Your task to perform on an android device: What's the weather going to be tomorrow? Image 0: 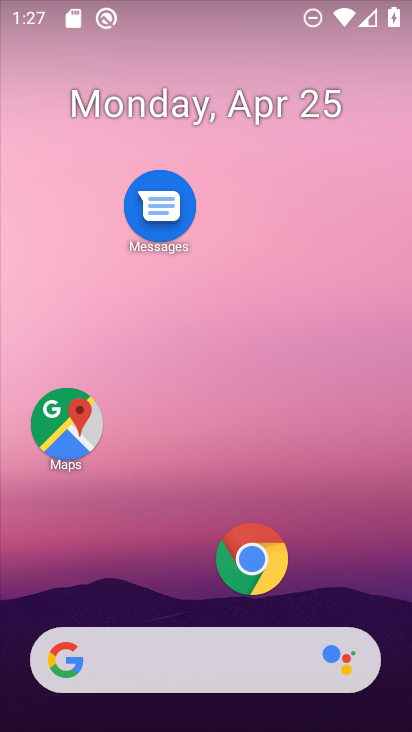
Step 0: drag from (178, 571) to (411, 66)
Your task to perform on an android device: What's the weather going to be tomorrow? Image 1: 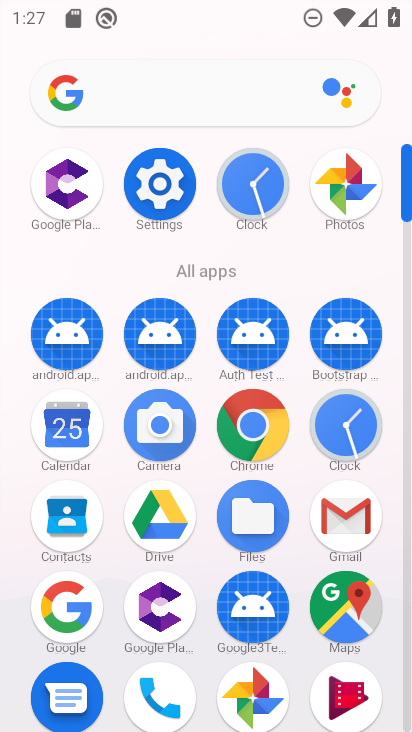
Step 1: click (70, 600)
Your task to perform on an android device: What's the weather going to be tomorrow? Image 2: 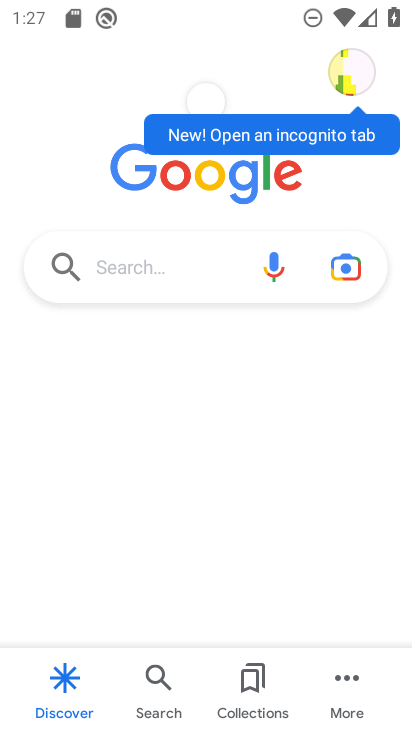
Step 2: click (160, 275)
Your task to perform on an android device: What's the weather going to be tomorrow? Image 3: 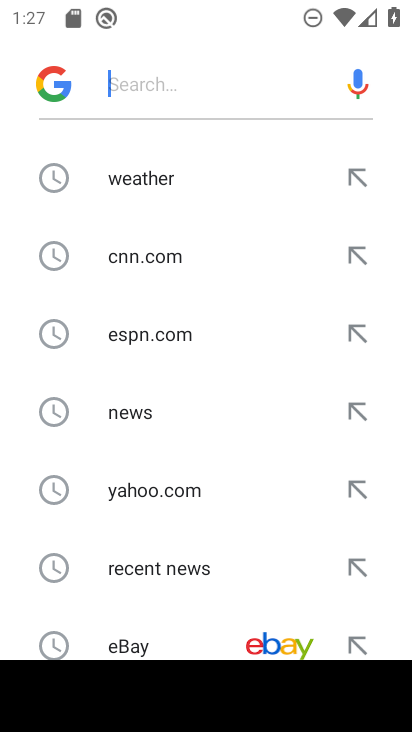
Step 3: type "whats the weather to be going tomorrow"
Your task to perform on an android device: What's the weather going to be tomorrow? Image 4: 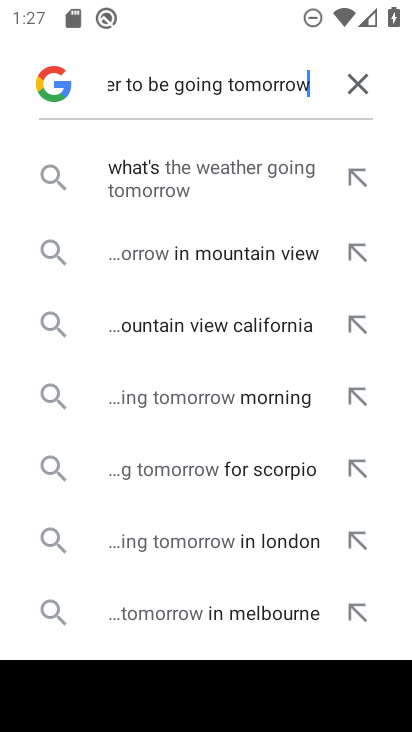
Step 4: click (263, 173)
Your task to perform on an android device: What's the weather going to be tomorrow? Image 5: 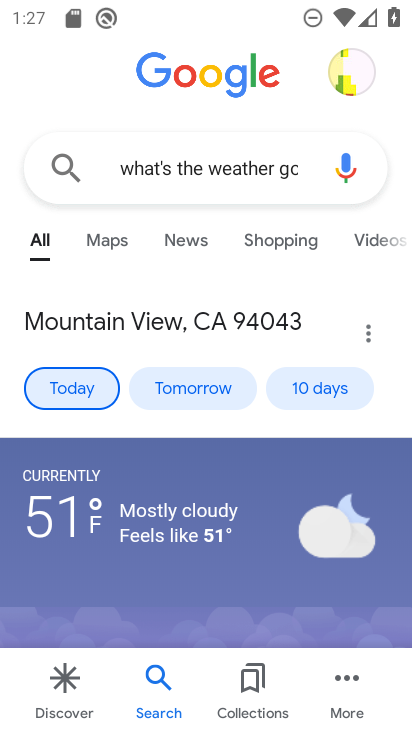
Step 5: click (174, 379)
Your task to perform on an android device: What's the weather going to be tomorrow? Image 6: 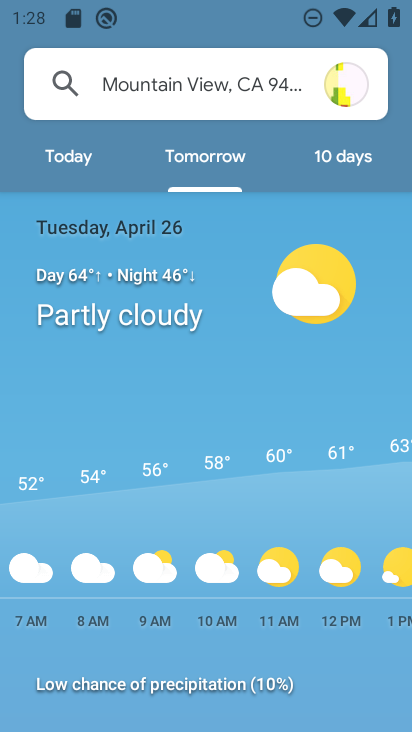
Step 6: task complete